Your task to perform on an android device: Open battery settings Image 0: 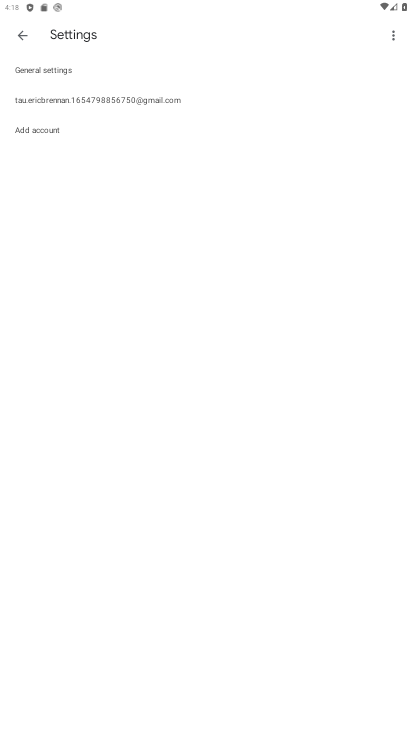
Step 0: press home button
Your task to perform on an android device: Open battery settings Image 1: 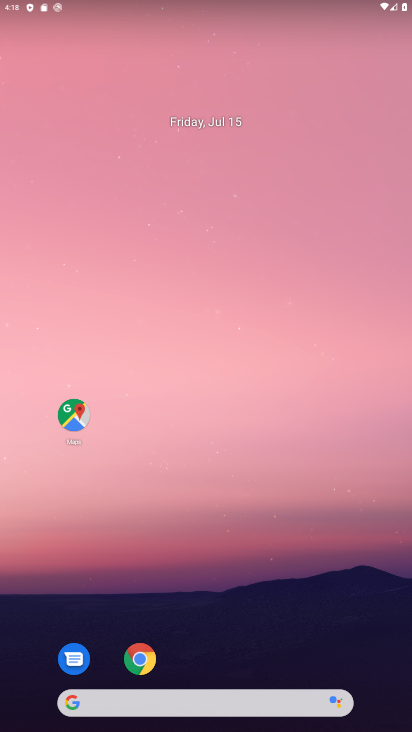
Step 1: drag from (171, 9) to (189, 657)
Your task to perform on an android device: Open battery settings Image 2: 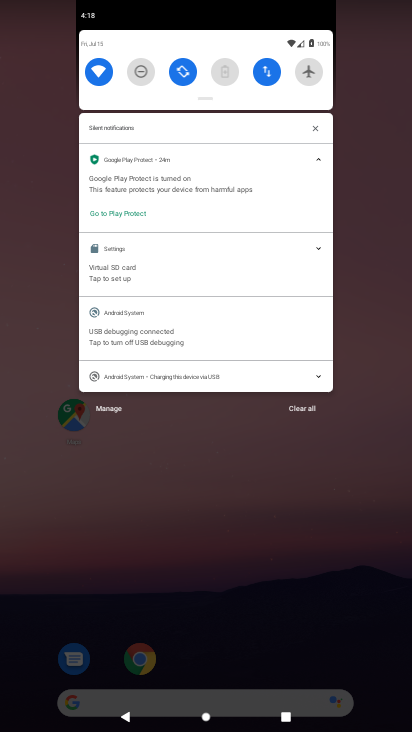
Step 2: click (220, 62)
Your task to perform on an android device: Open battery settings Image 3: 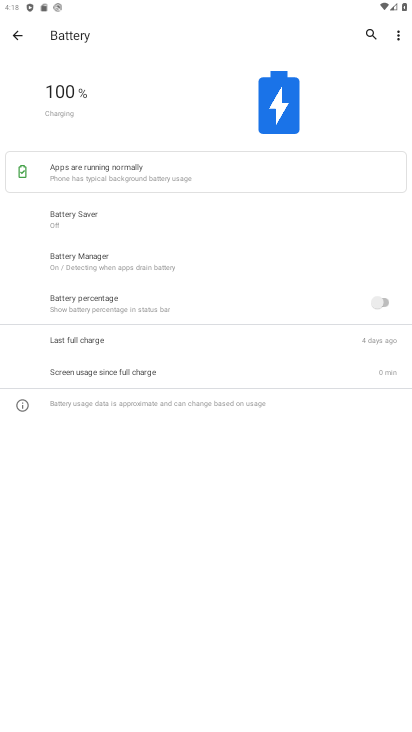
Step 3: task complete